Your task to perform on an android device: turn vacation reply on in the gmail app Image 0: 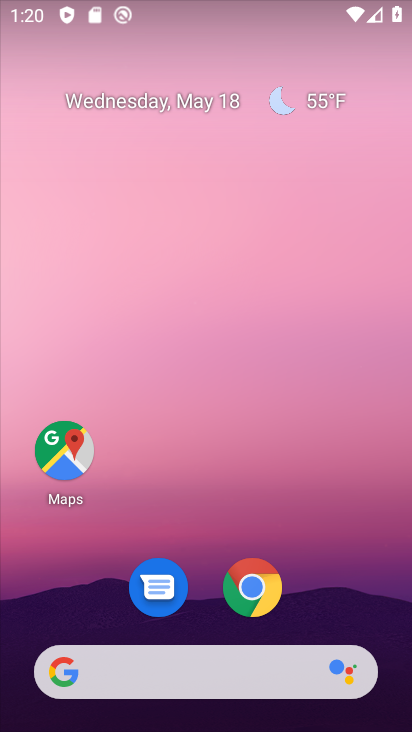
Step 0: drag from (175, 618) to (206, 65)
Your task to perform on an android device: turn vacation reply on in the gmail app Image 1: 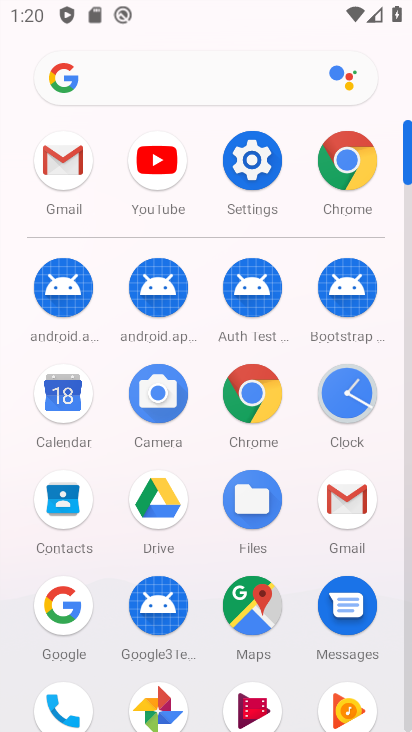
Step 1: click (43, 156)
Your task to perform on an android device: turn vacation reply on in the gmail app Image 2: 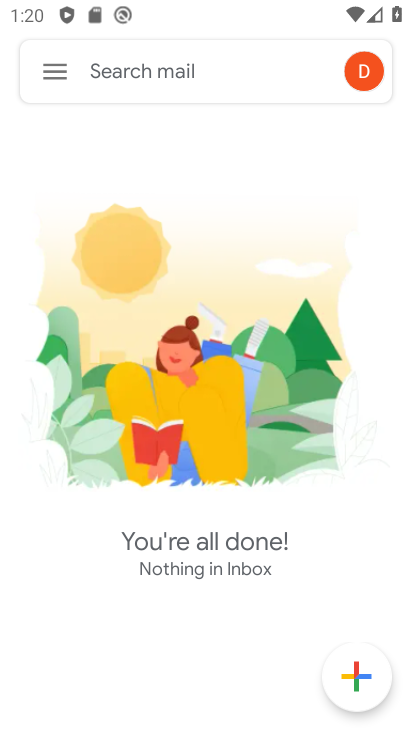
Step 2: click (39, 73)
Your task to perform on an android device: turn vacation reply on in the gmail app Image 3: 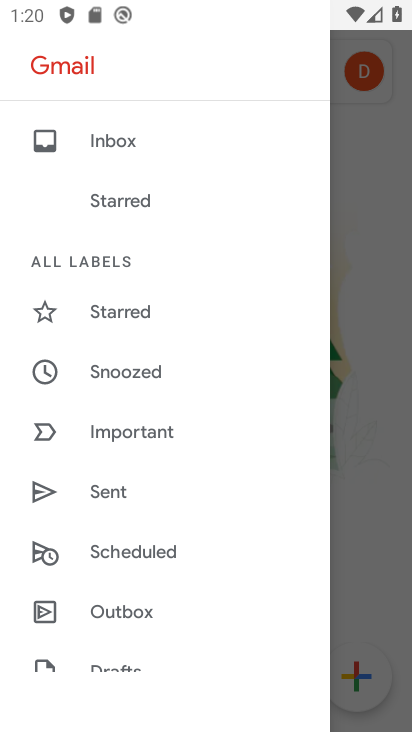
Step 3: drag from (137, 623) to (282, 17)
Your task to perform on an android device: turn vacation reply on in the gmail app Image 4: 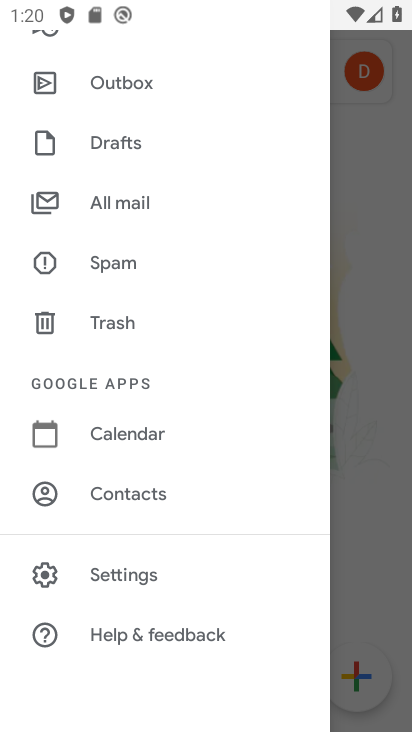
Step 4: click (113, 581)
Your task to perform on an android device: turn vacation reply on in the gmail app Image 5: 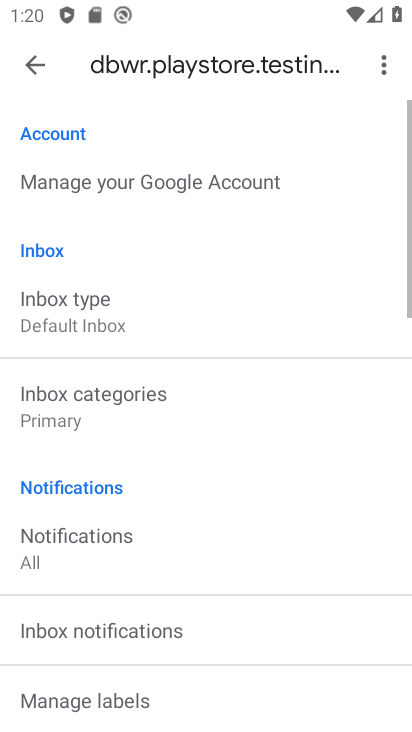
Step 5: drag from (150, 664) to (319, 4)
Your task to perform on an android device: turn vacation reply on in the gmail app Image 6: 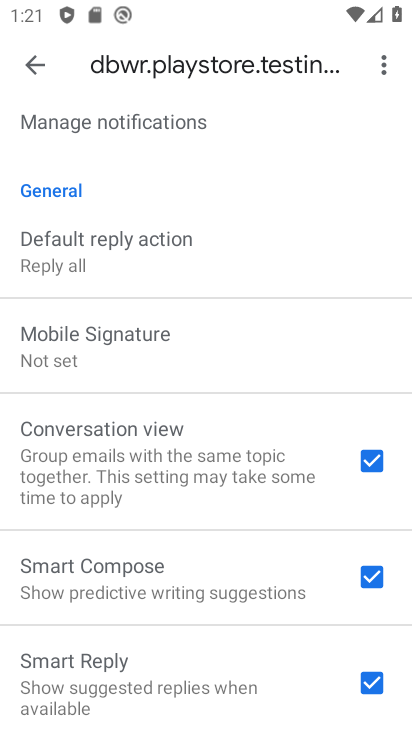
Step 6: drag from (176, 647) to (245, 134)
Your task to perform on an android device: turn vacation reply on in the gmail app Image 7: 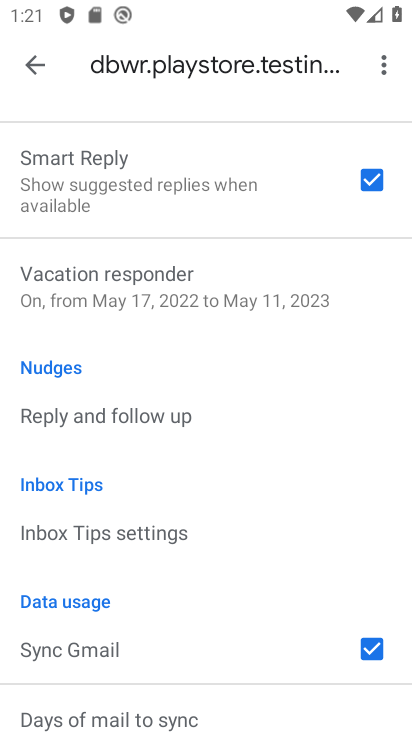
Step 7: click (112, 291)
Your task to perform on an android device: turn vacation reply on in the gmail app Image 8: 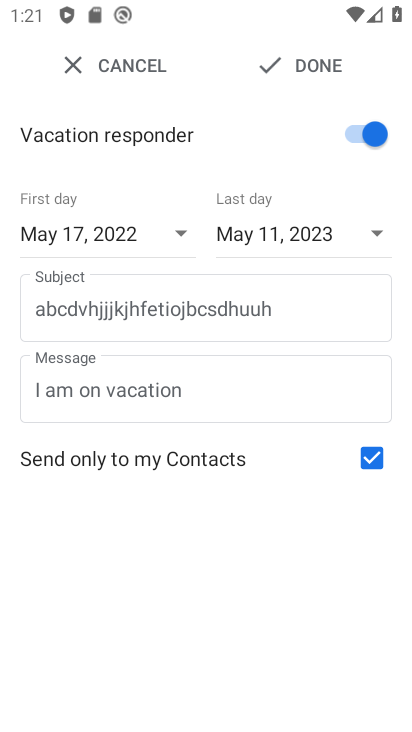
Step 8: task complete